Your task to perform on an android device: see tabs open on other devices in the chrome app Image 0: 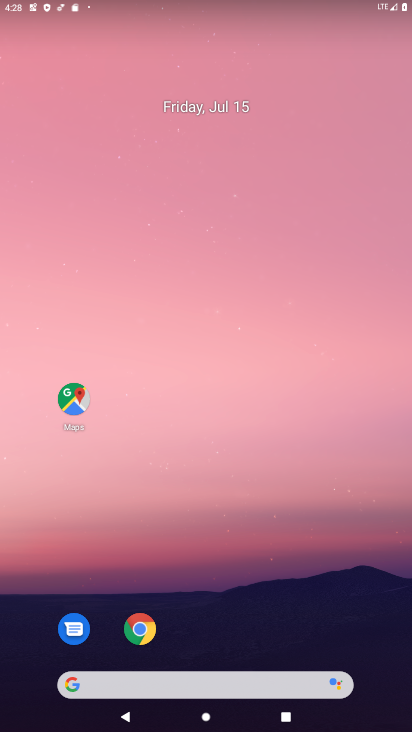
Step 0: drag from (250, 135) to (88, 47)
Your task to perform on an android device: see tabs open on other devices in the chrome app Image 1: 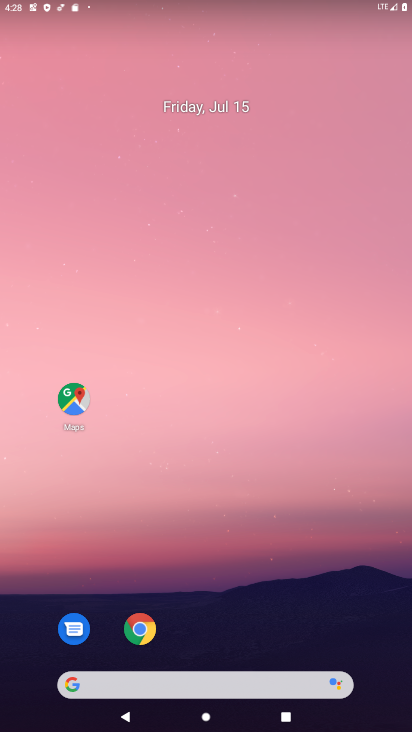
Step 1: click (172, 56)
Your task to perform on an android device: see tabs open on other devices in the chrome app Image 2: 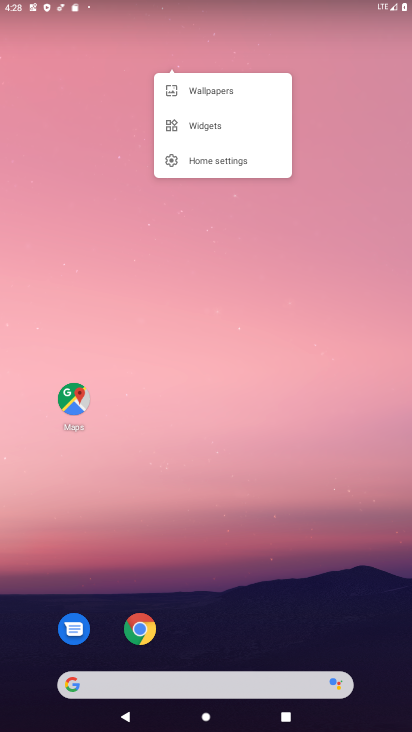
Step 2: drag from (201, 581) to (227, 22)
Your task to perform on an android device: see tabs open on other devices in the chrome app Image 3: 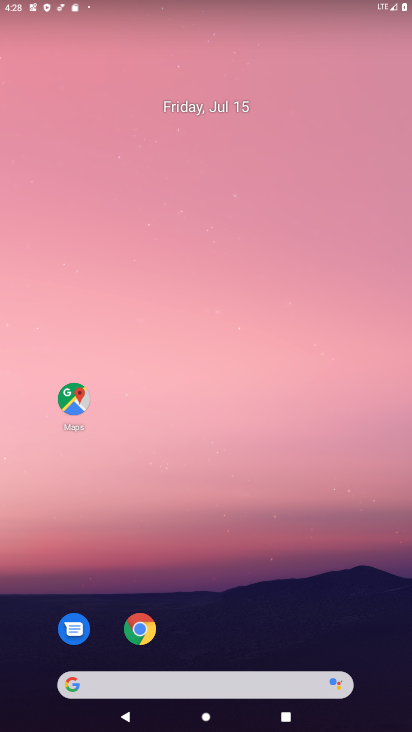
Step 3: drag from (189, 495) to (175, 151)
Your task to perform on an android device: see tabs open on other devices in the chrome app Image 4: 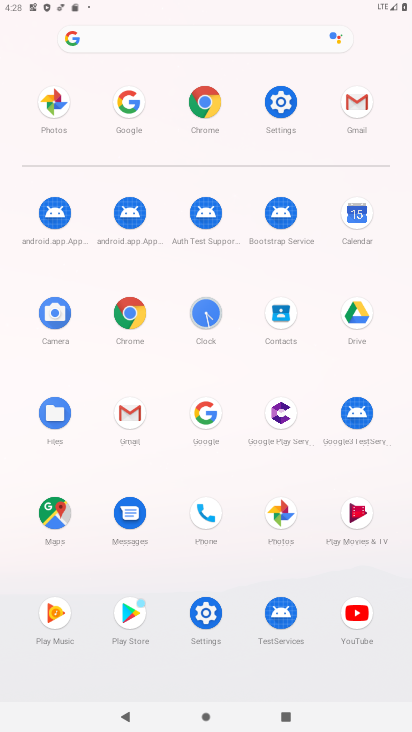
Step 4: click (127, 317)
Your task to perform on an android device: see tabs open on other devices in the chrome app Image 5: 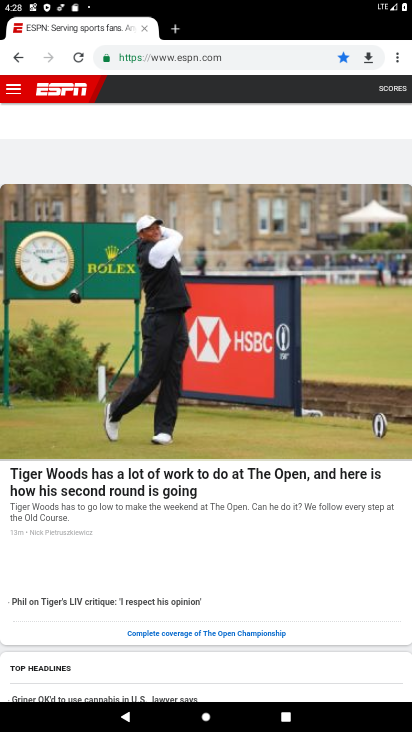
Step 5: click (399, 62)
Your task to perform on an android device: see tabs open on other devices in the chrome app Image 6: 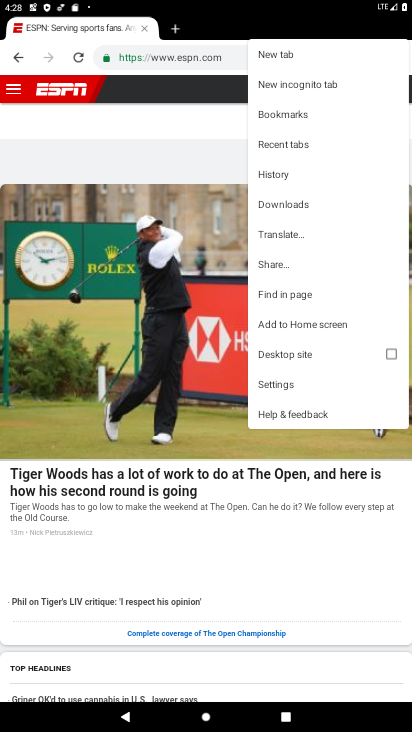
Step 6: click (301, 144)
Your task to perform on an android device: see tabs open on other devices in the chrome app Image 7: 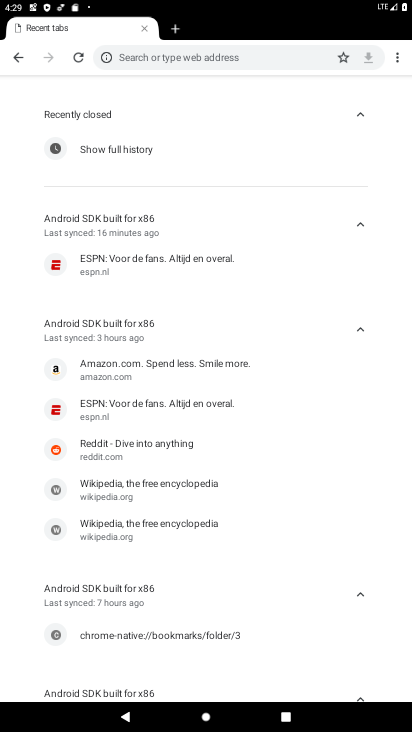
Step 7: task complete